Your task to perform on an android device: Empty the shopping cart on bestbuy. Add asus rog to the cart on bestbuy, then select checkout. Image 0: 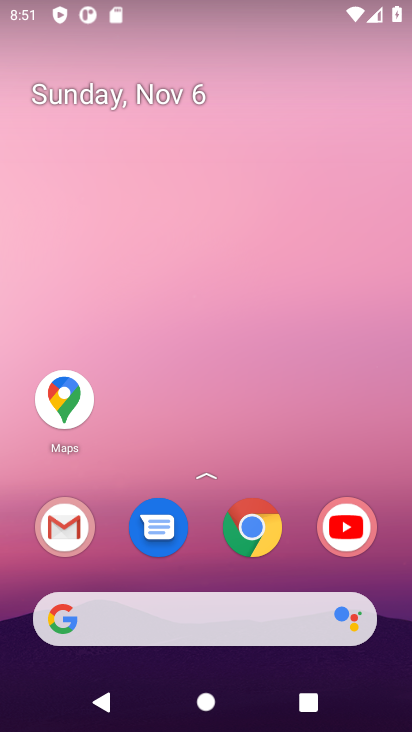
Step 0: click (250, 535)
Your task to perform on an android device: Empty the shopping cart on bestbuy. Add asus rog to the cart on bestbuy, then select checkout. Image 1: 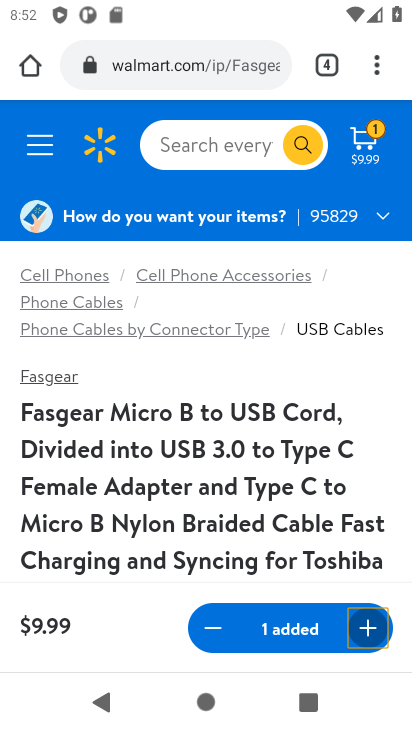
Step 1: click (324, 63)
Your task to perform on an android device: Empty the shopping cart on bestbuy. Add asus rog to the cart on bestbuy, then select checkout. Image 2: 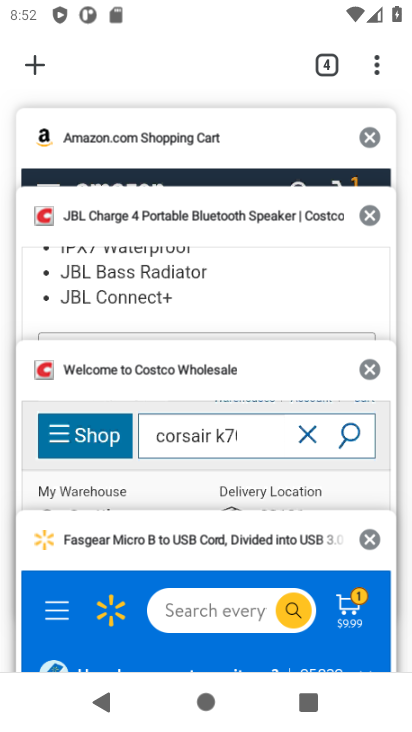
Step 2: click (25, 58)
Your task to perform on an android device: Empty the shopping cart on bestbuy. Add asus rog to the cart on bestbuy, then select checkout. Image 3: 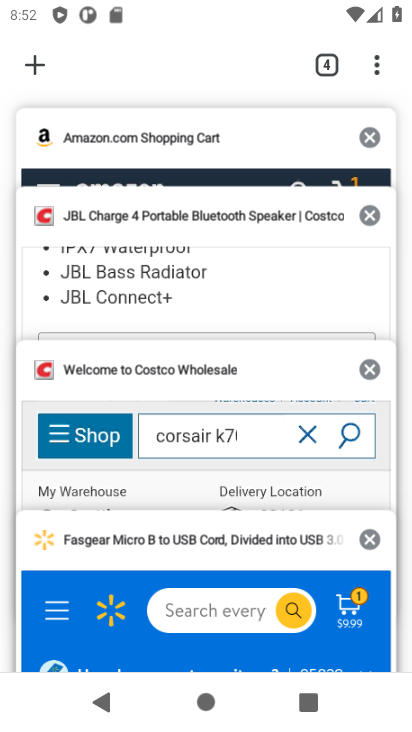
Step 3: click (31, 52)
Your task to perform on an android device: Empty the shopping cart on bestbuy. Add asus rog to the cart on bestbuy, then select checkout. Image 4: 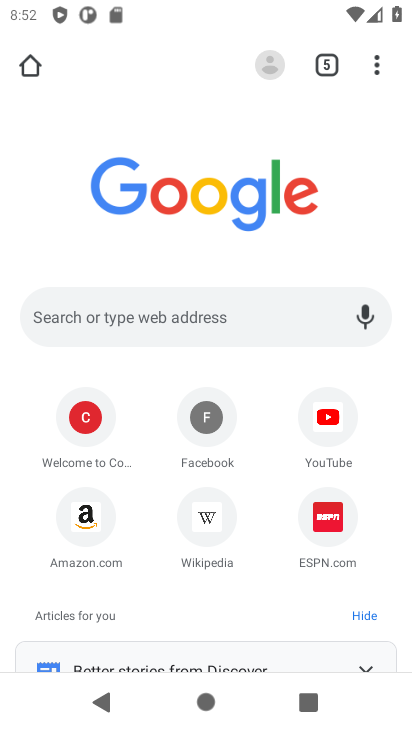
Step 4: click (182, 309)
Your task to perform on an android device: Empty the shopping cart on bestbuy. Add asus rog to the cart on bestbuy, then select checkout. Image 5: 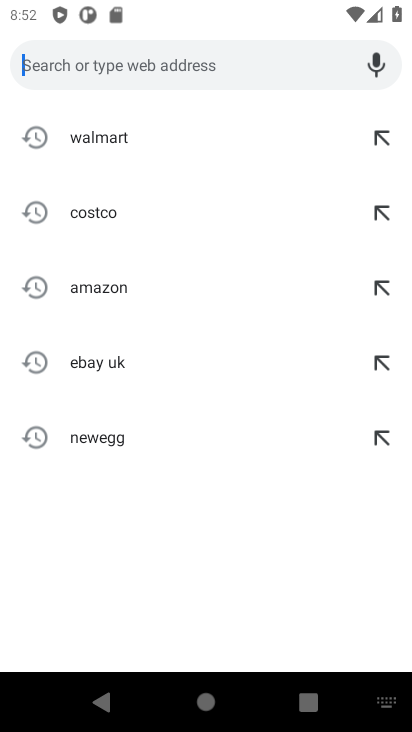
Step 5: type "best buy"
Your task to perform on an android device: Empty the shopping cart on bestbuy. Add asus rog to the cart on bestbuy, then select checkout. Image 6: 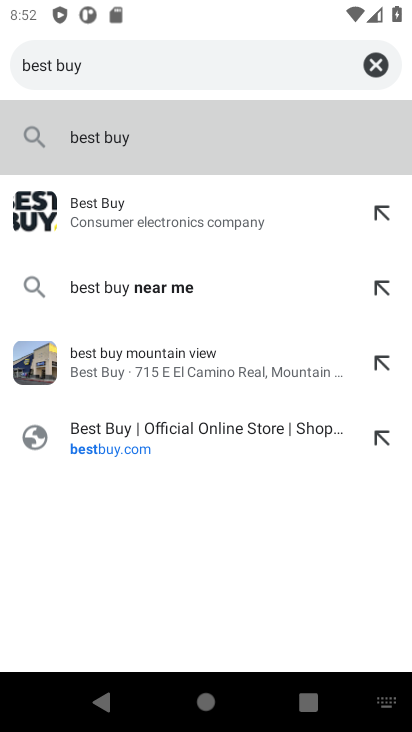
Step 6: click (174, 132)
Your task to perform on an android device: Empty the shopping cart on bestbuy. Add asus rog to the cart on bestbuy, then select checkout. Image 7: 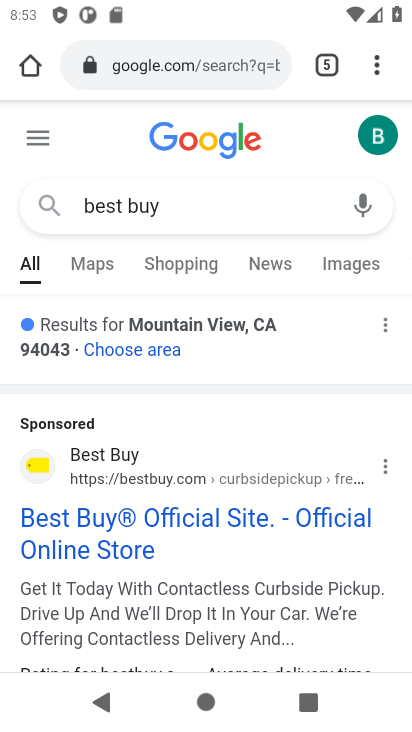
Step 7: click (214, 531)
Your task to perform on an android device: Empty the shopping cart on bestbuy. Add asus rog to the cart on bestbuy, then select checkout. Image 8: 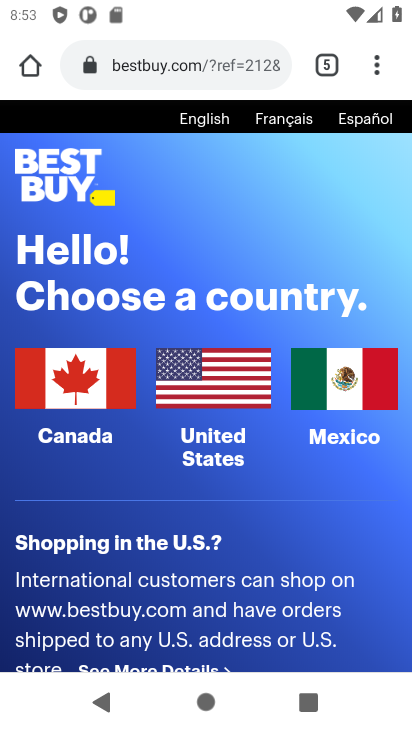
Step 8: click (216, 411)
Your task to perform on an android device: Empty the shopping cart on bestbuy. Add asus rog to the cart on bestbuy, then select checkout. Image 9: 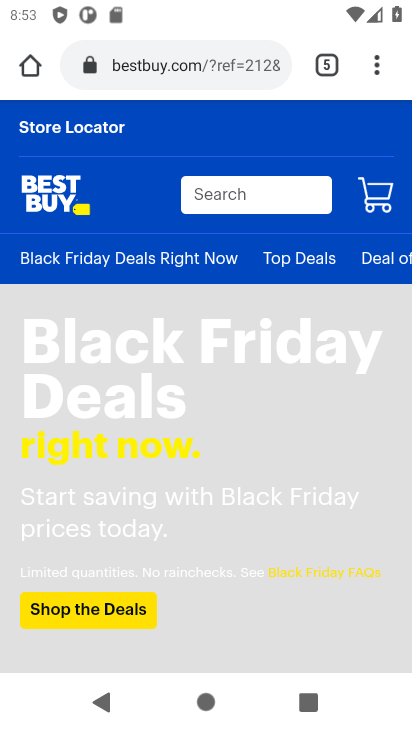
Step 9: click (221, 197)
Your task to perform on an android device: Empty the shopping cart on bestbuy. Add asus rog to the cart on bestbuy, then select checkout. Image 10: 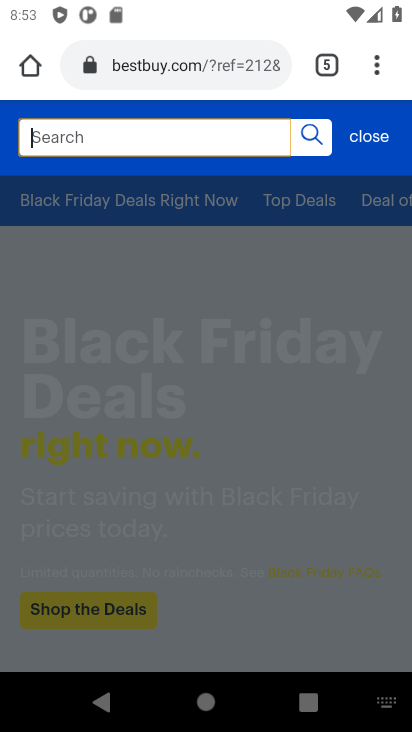
Step 10: type "asus rog"
Your task to perform on an android device: Empty the shopping cart on bestbuy. Add asus rog to the cart on bestbuy, then select checkout. Image 11: 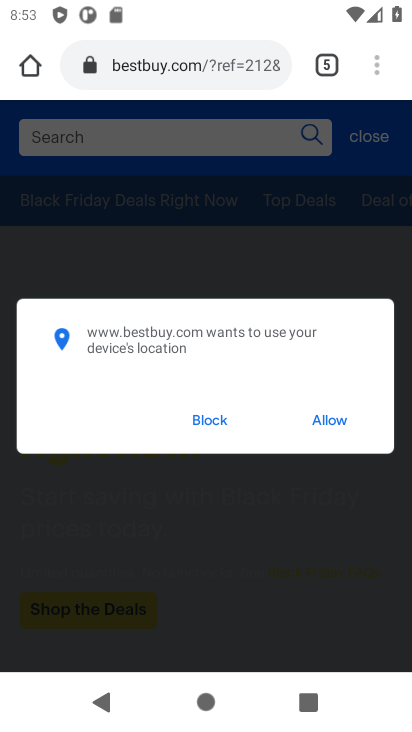
Step 11: click (218, 410)
Your task to perform on an android device: Empty the shopping cart on bestbuy. Add asus rog to the cart on bestbuy, then select checkout. Image 12: 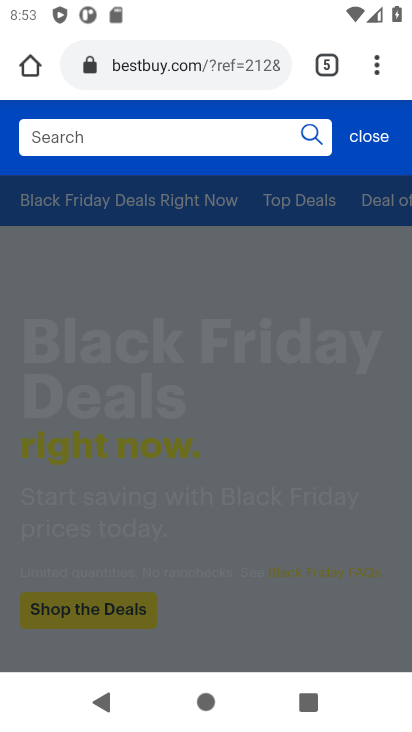
Step 12: click (151, 141)
Your task to perform on an android device: Empty the shopping cart on bestbuy. Add asus rog to the cart on bestbuy, then select checkout. Image 13: 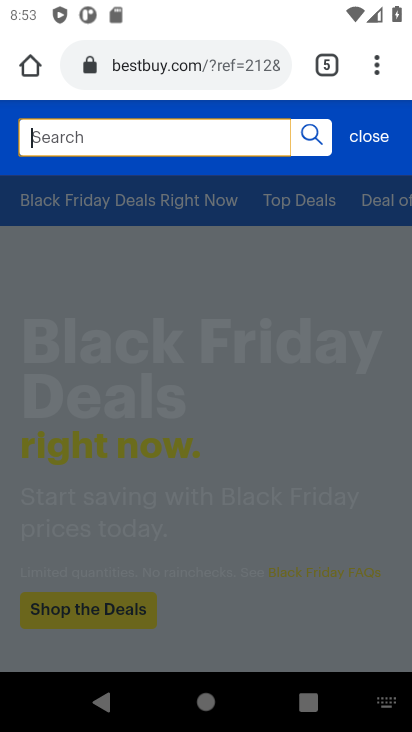
Step 13: click (113, 141)
Your task to perform on an android device: Empty the shopping cart on bestbuy. Add asus rog to the cart on bestbuy, then select checkout. Image 14: 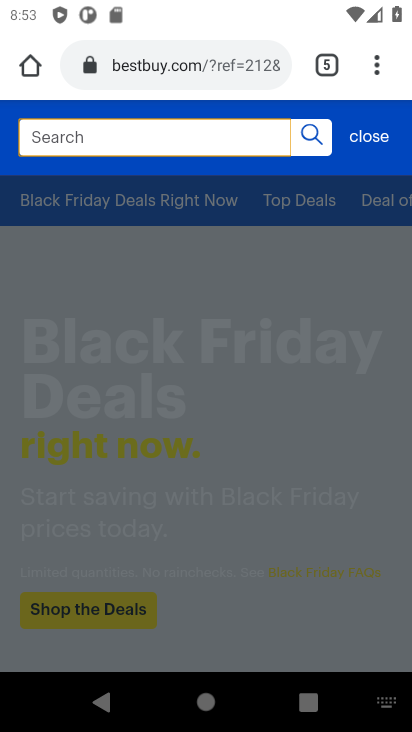
Step 14: type "asus rog "
Your task to perform on an android device: Empty the shopping cart on bestbuy. Add asus rog to the cart on bestbuy, then select checkout. Image 15: 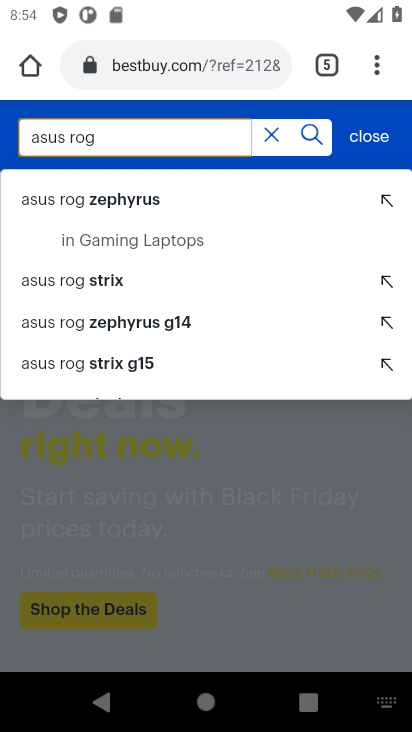
Step 15: click (160, 198)
Your task to perform on an android device: Empty the shopping cart on bestbuy. Add asus rog to the cart on bestbuy, then select checkout. Image 16: 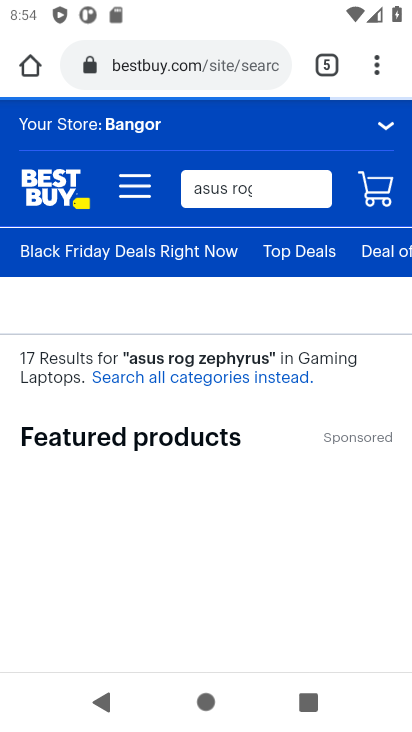
Step 16: drag from (174, 587) to (227, 250)
Your task to perform on an android device: Empty the shopping cart on bestbuy. Add asus rog to the cart on bestbuy, then select checkout. Image 17: 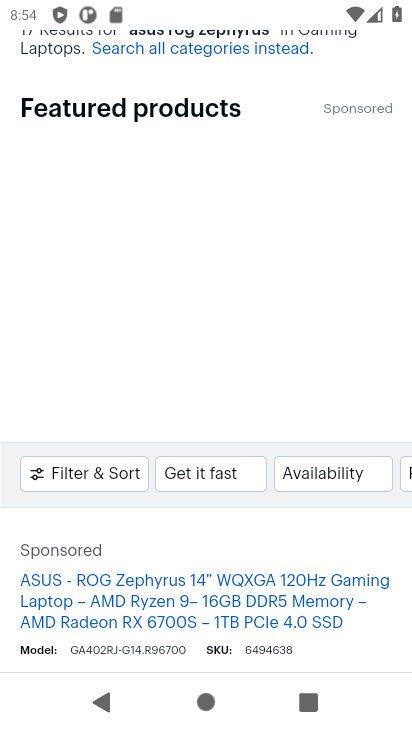
Step 17: drag from (227, 321) to (206, 564)
Your task to perform on an android device: Empty the shopping cart on bestbuy. Add asus rog to the cart on bestbuy, then select checkout. Image 18: 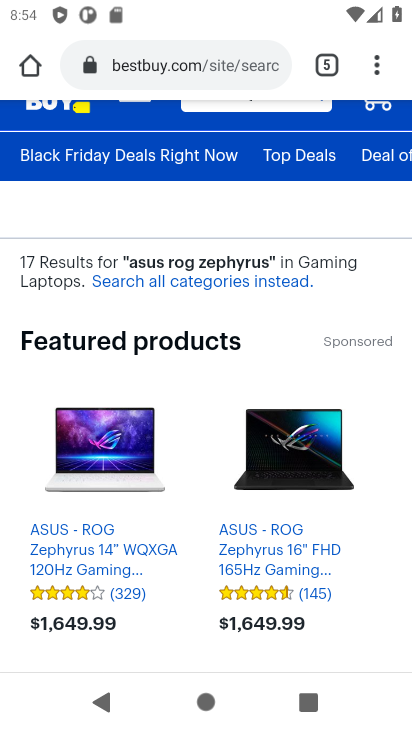
Step 18: click (76, 441)
Your task to perform on an android device: Empty the shopping cart on bestbuy. Add asus rog to the cart on bestbuy, then select checkout. Image 19: 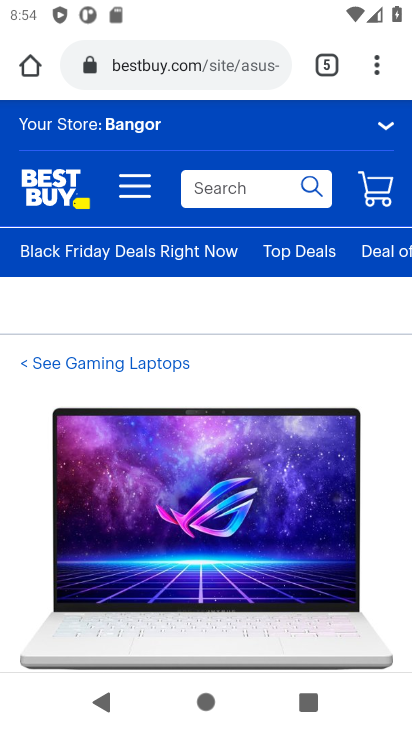
Step 19: task complete